Your task to perform on an android device: Go to settings Image 0: 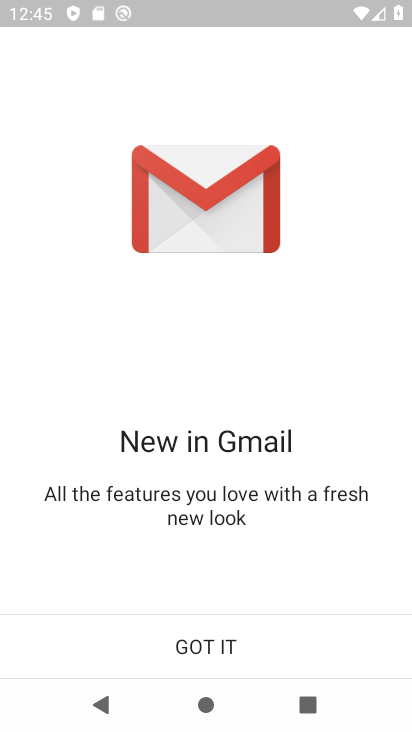
Step 0: press back button
Your task to perform on an android device: Go to settings Image 1: 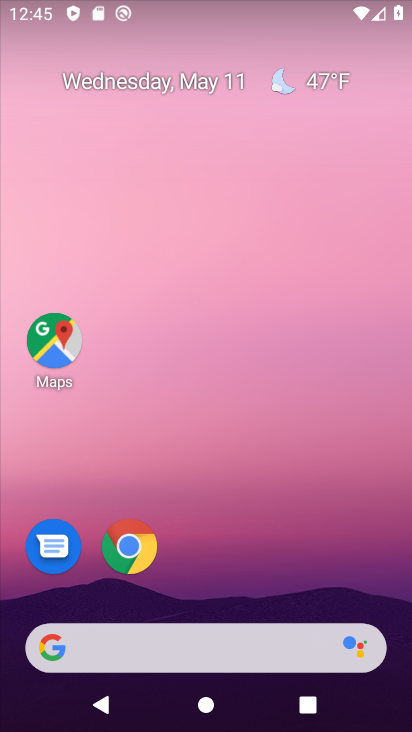
Step 1: drag from (225, 632) to (309, 94)
Your task to perform on an android device: Go to settings Image 2: 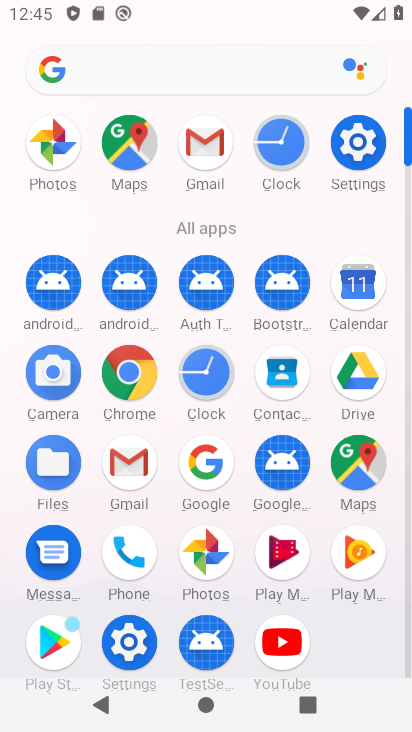
Step 2: click (96, 641)
Your task to perform on an android device: Go to settings Image 3: 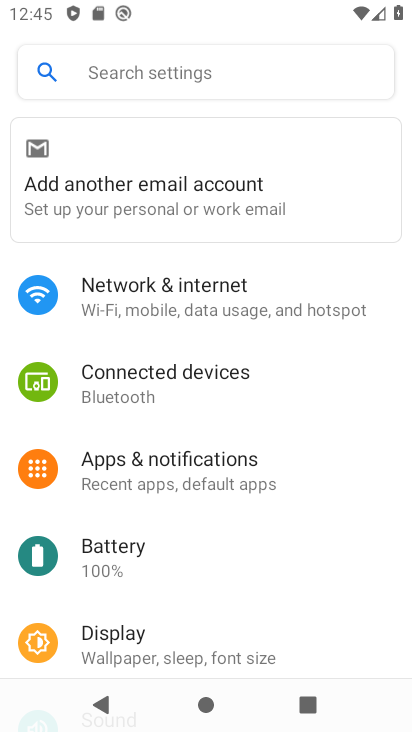
Step 3: task complete